Your task to perform on an android device: turn off sleep mode Image 0: 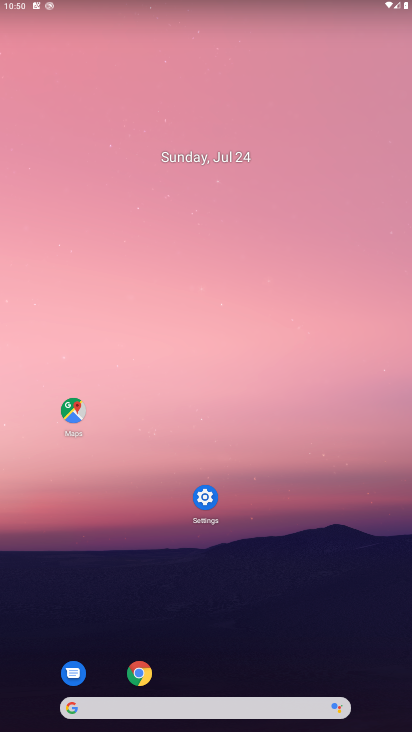
Step 0: click (196, 502)
Your task to perform on an android device: turn off sleep mode Image 1: 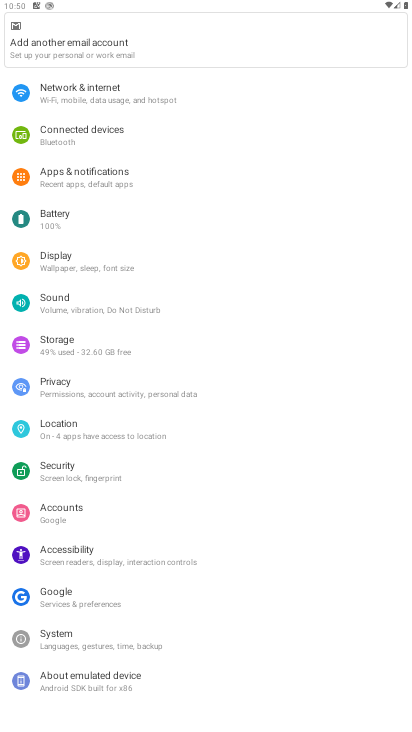
Step 1: task complete